Your task to perform on an android device: find snoozed emails in the gmail app Image 0: 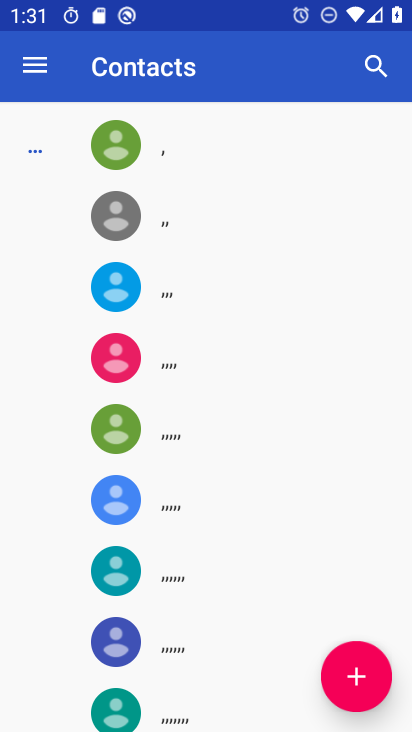
Step 0: press home button
Your task to perform on an android device: find snoozed emails in the gmail app Image 1: 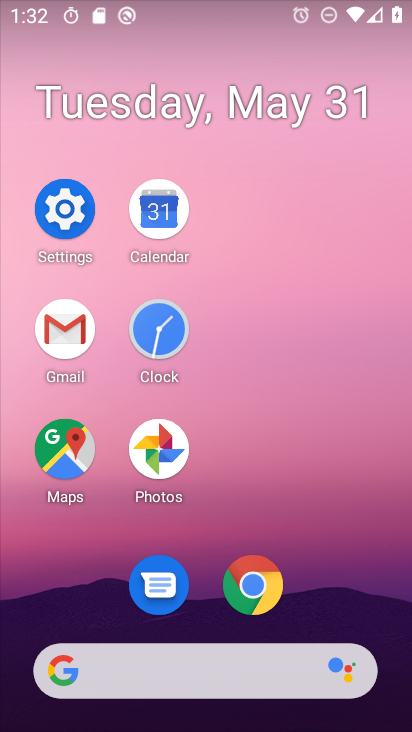
Step 1: click (66, 345)
Your task to perform on an android device: find snoozed emails in the gmail app Image 2: 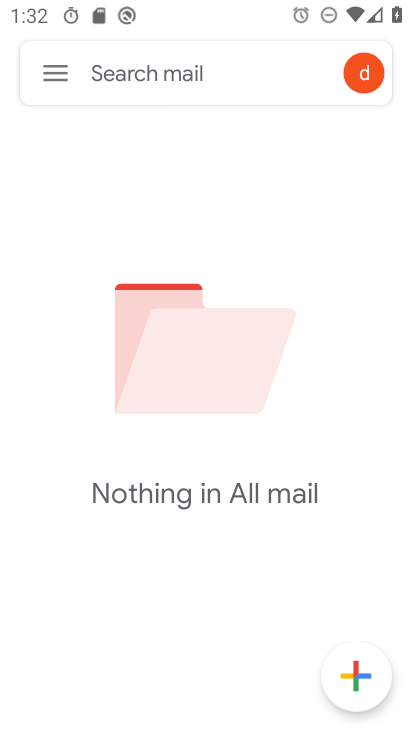
Step 2: click (50, 73)
Your task to perform on an android device: find snoozed emails in the gmail app Image 3: 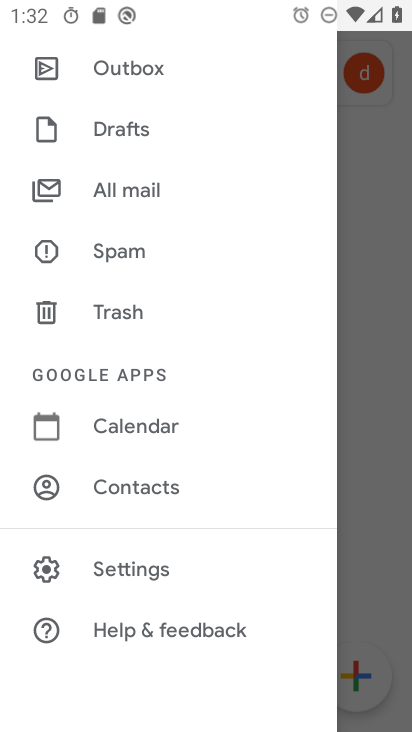
Step 3: drag from (182, 110) to (238, 653)
Your task to perform on an android device: find snoozed emails in the gmail app Image 4: 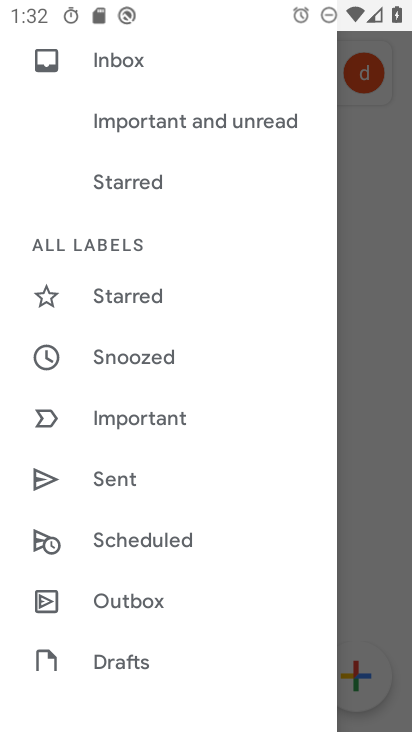
Step 4: click (168, 358)
Your task to perform on an android device: find snoozed emails in the gmail app Image 5: 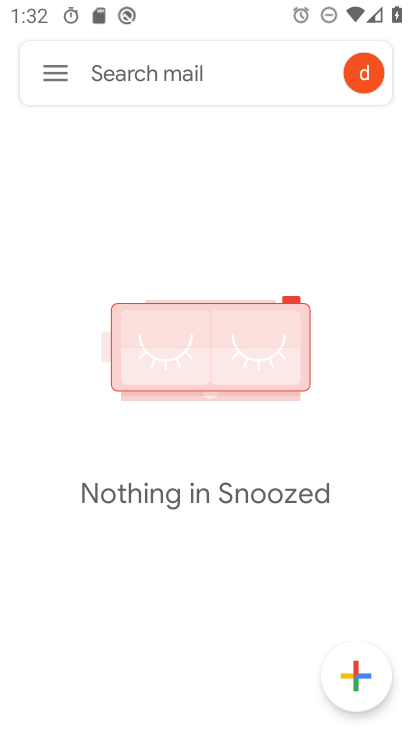
Step 5: task complete